Your task to perform on an android device: Go to wifi settings Image 0: 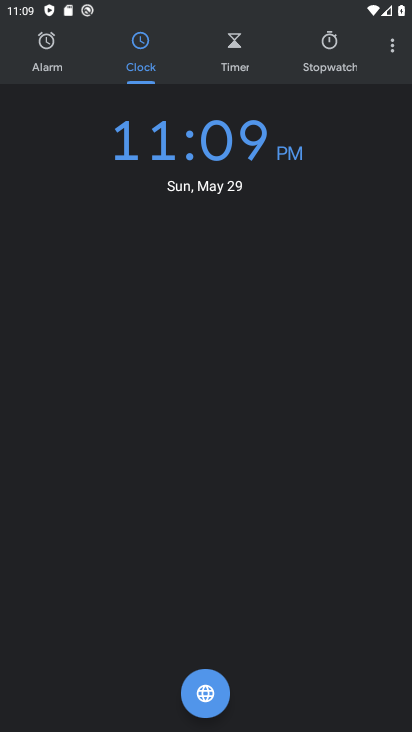
Step 0: press home button
Your task to perform on an android device: Go to wifi settings Image 1: 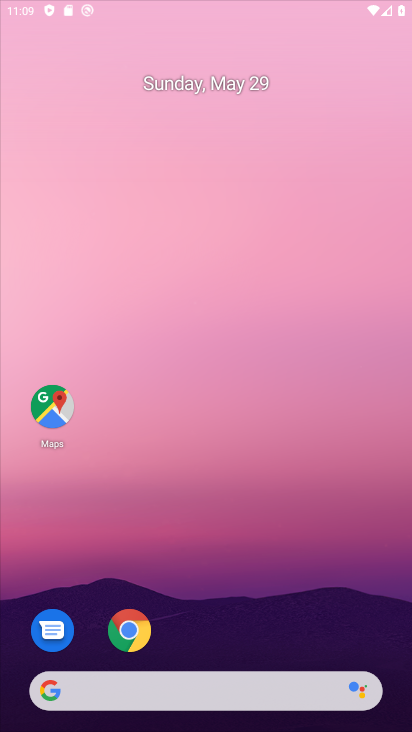
Step 1: drag from (149, 271) to (146, 22)
Your task to perform on an android device: Go to wifi settings Image 2: 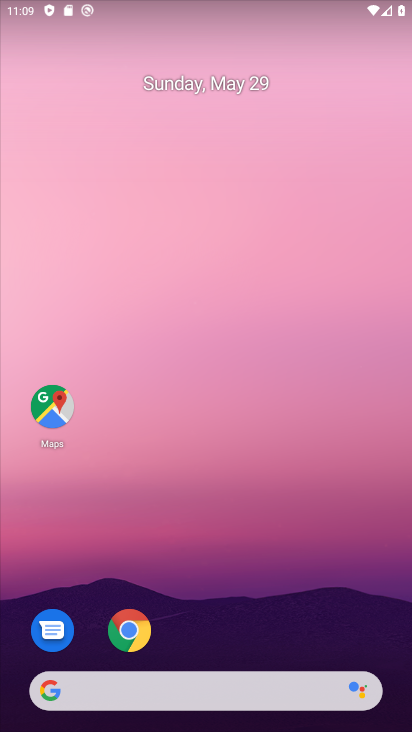
Step 2: drag from (121, 591) to (109, 26)
Your task to perform on an android device: Go to wifi settings Image 3: 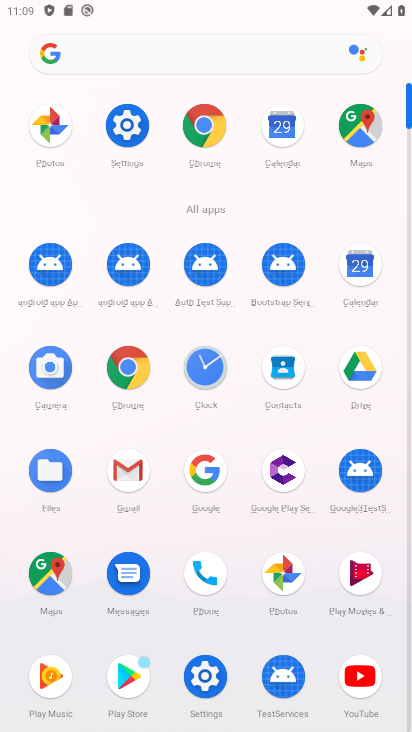
Step 3: click (120, 121)
Your task to perform on an android device: Go to wifi settings Image 4: 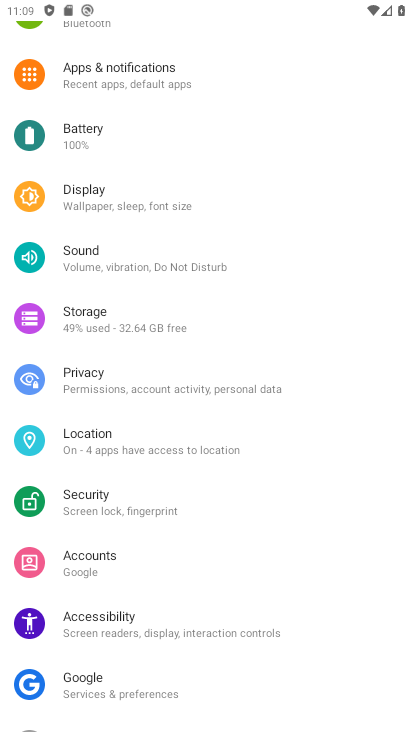
Step 4: drag from (202, 82) to (198, 610)
Your task to perform on an android device: Go to wifi settings Image 5: 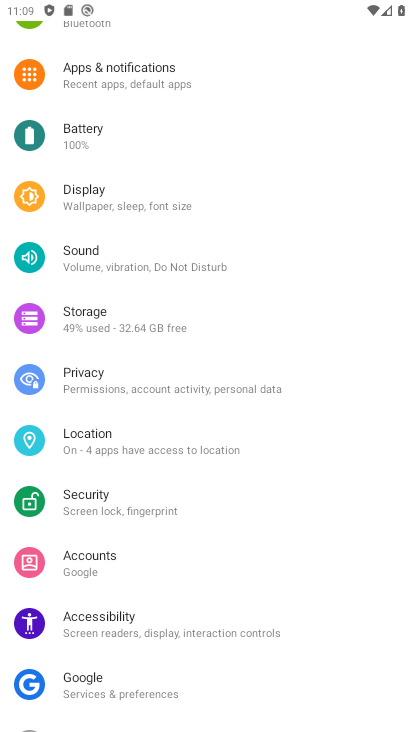
Step 5: drag from (106, 56) to (133, 625)
Your task to perform on an android device: Go to wifi settings Image 6: 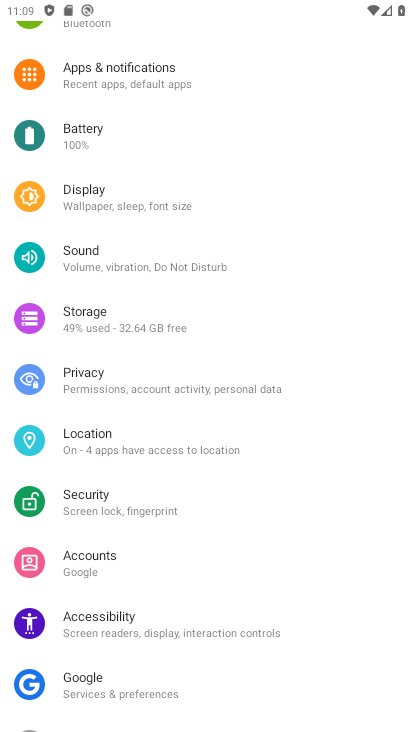
Step 6: drag from (176, 125) to (189, 576)
Your task to perform on an android device: Go to wifi settings Image 7: 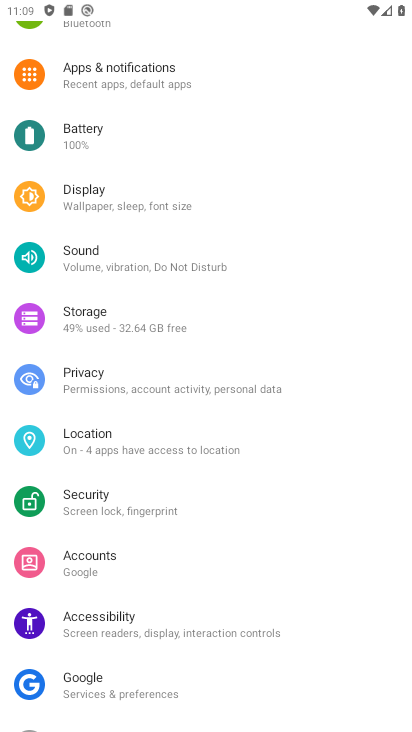
Step 7: drag from (229, 72) to (192, 558)
Your task to perform on an android device: Go to wifi settings Image 8: 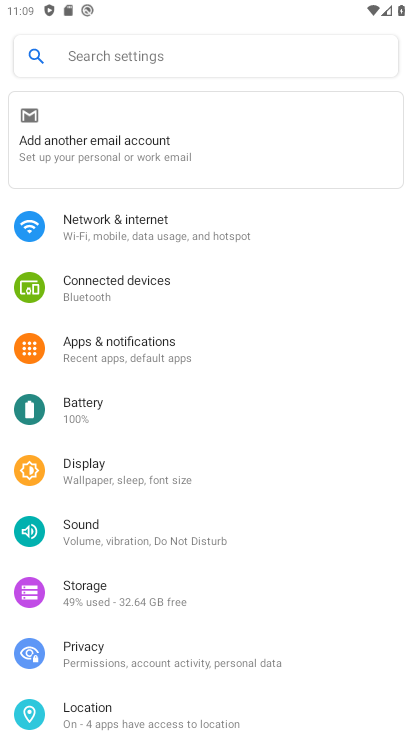
Step 8: click (190, 227)
Your task to perform on an android device: Go to wifi settings Image 9: 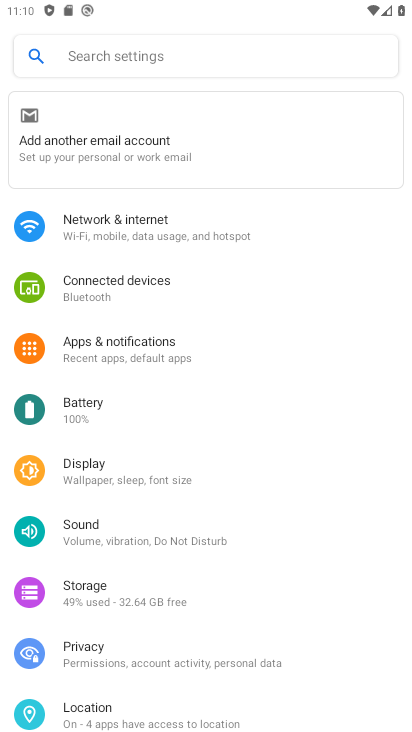
Step 9: click (176, 232)
Your task to perform on an android device: Go to wifi settings Image 10: 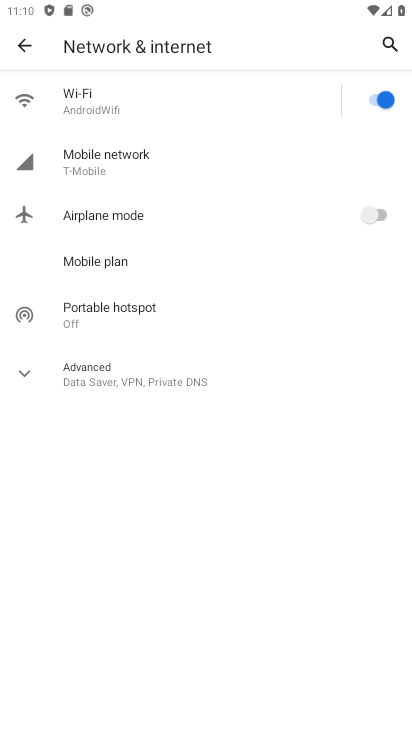
Step 10: click (98, 109)
Your task to perform on an android device: Go to wifi settings Image 11: 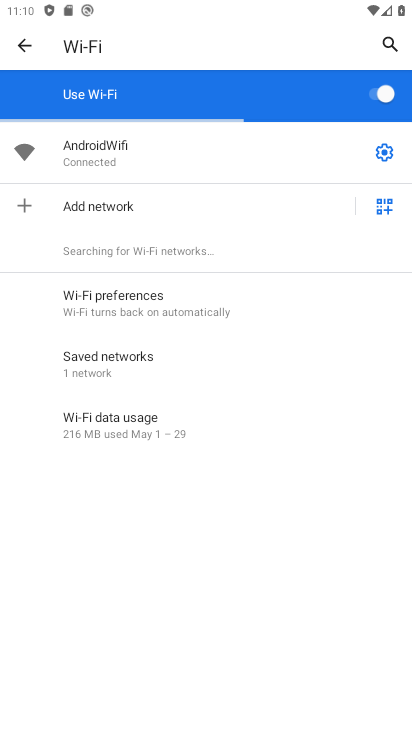
Step 11: task complete